Your task to perform on an android device: set the timer Image 0: 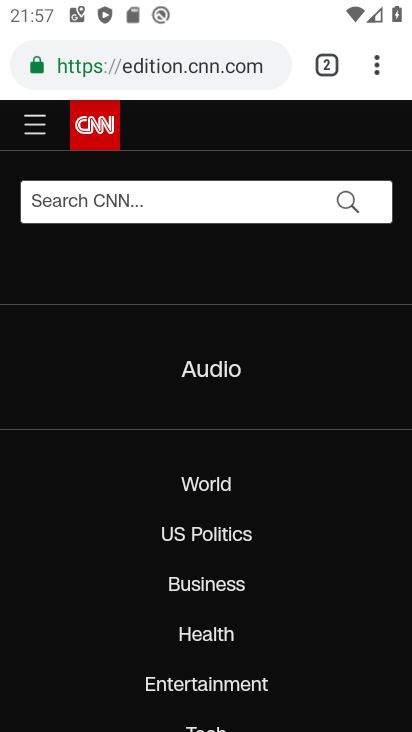
Step 0: press home button
Your task to perform on an android device: set the timer Image 1: 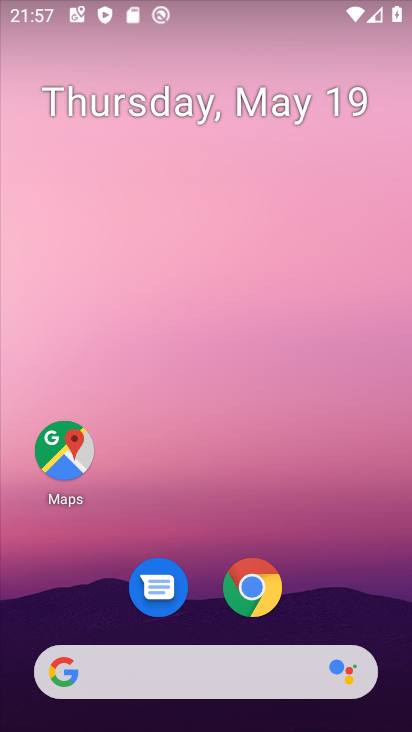
Step 1: drag from (191, 694) to (112, 12)
Your task to perform on an android device: set the timer Image 2: 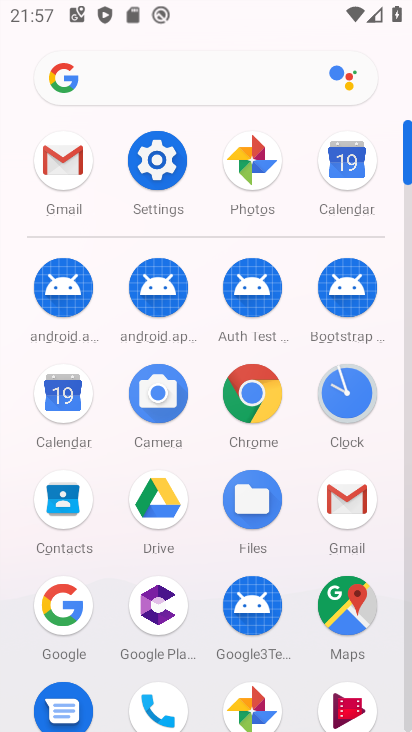
Step 2: click (343, 396)
Your task to perform on an android device: set the timer Image 3: 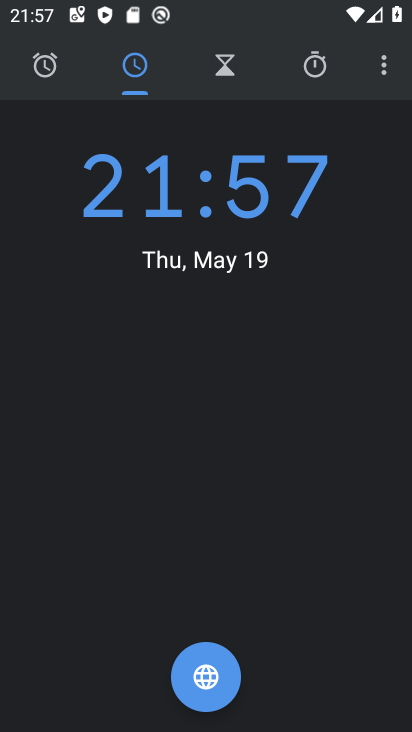
Step 3: click (230, 89)
Your task to perform on an android device: set the timer Image 4: 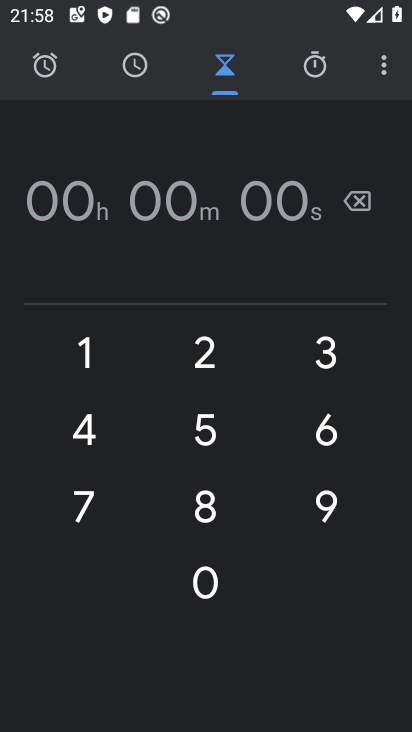
Step 4: click (82, 421)
Your task to perform on an android device: set the timer Image 5: 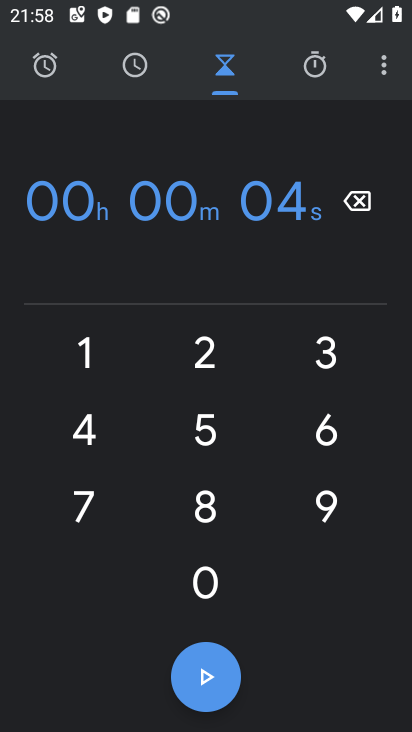
Step 5: click (224, 403)
Your task to perform on an android device: set the timer Image 6: 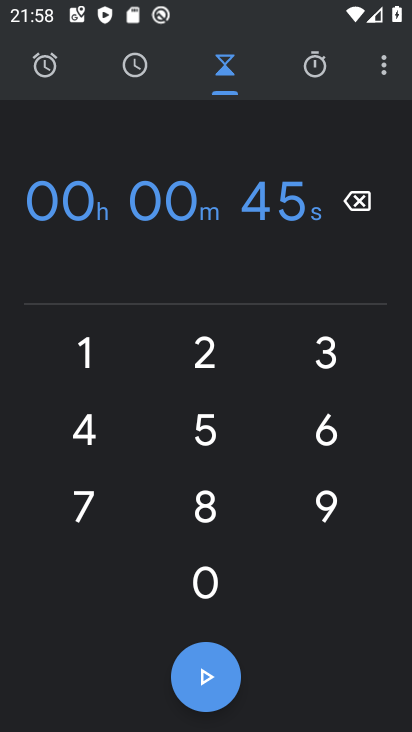
Step 6: click (342, 438)
Your task to perform on an android device: set the timer Image 7: 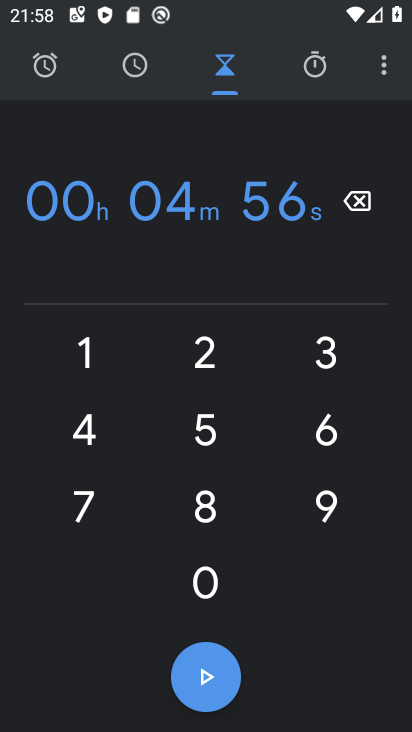
Step 7: click (330, 492)
Your task to perform on an android device: set the timer Image 8: 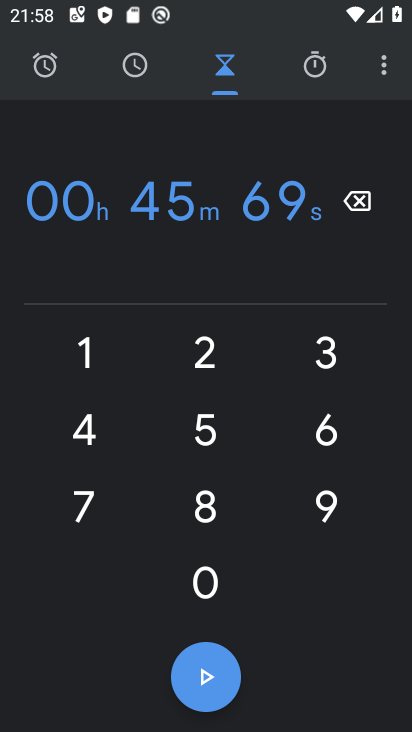
Step 8: click (217, 663)
Your task to perform on an android device: set the timer Image 9: 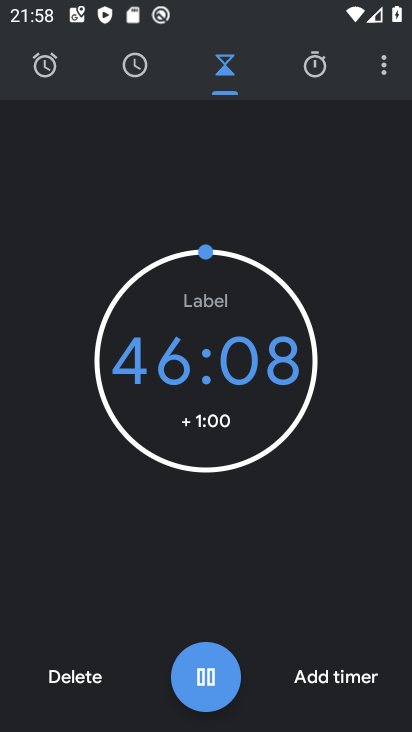
Step 9: task complete